Your task to perform on an android device: toggle location history Image 0: 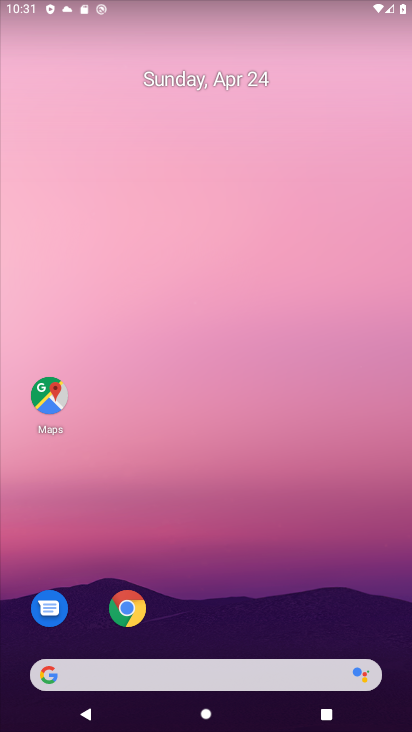
Step 0: drag from (289, 598) to (303, 139)
Your task to perform on an android device: toggle location history Image 1: 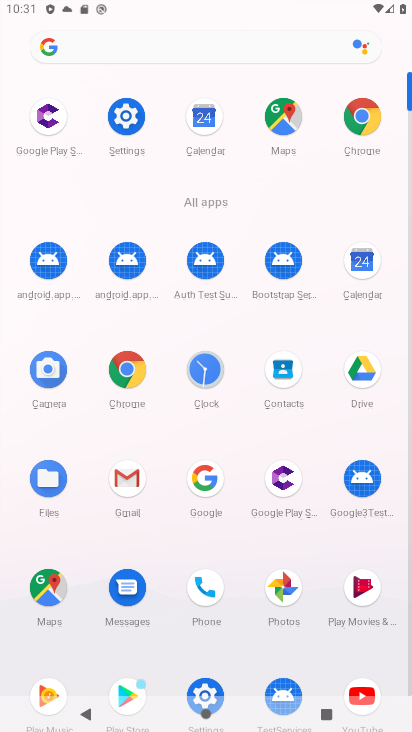
Step 1: click (125, 118)
Your task to perform on an android device: toggle location history Image 2: 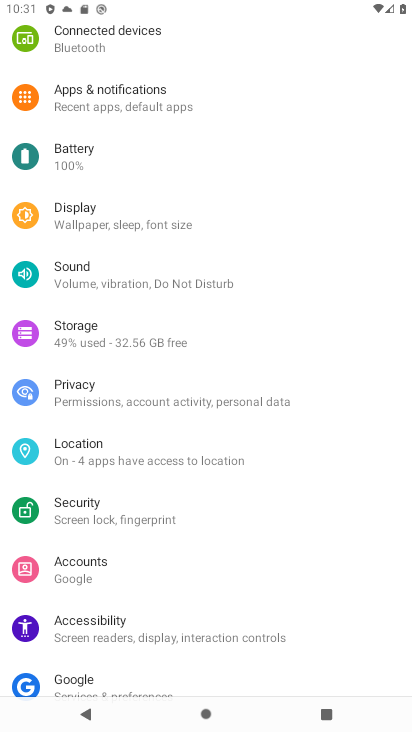
Step 2: click (105, 458)
Your task to perform on an android device: toggle location history Image 3: 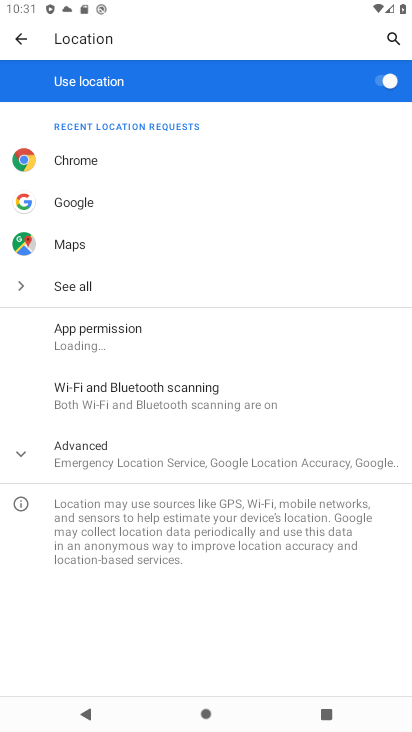
Step 3: click (116, 460)
Your task to perform on an android device: toggle location history Image 4: 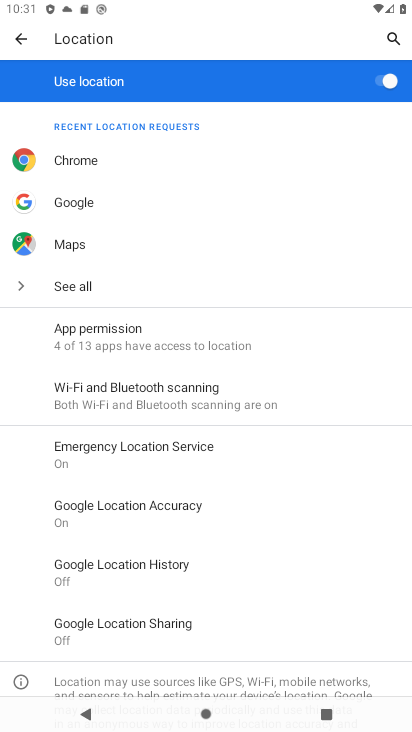
Step 4: click (131, 573)
Your task to perform on an android device: toggle location history Image 5: 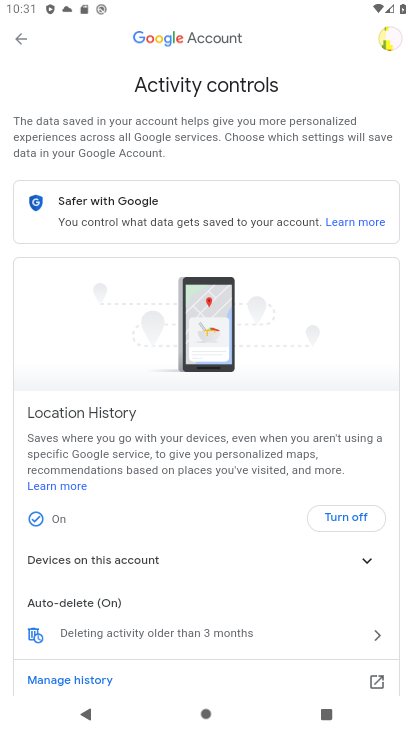
Step 5: click (368, 519)
Your task to perform on an android device: toggle location history Image 6: 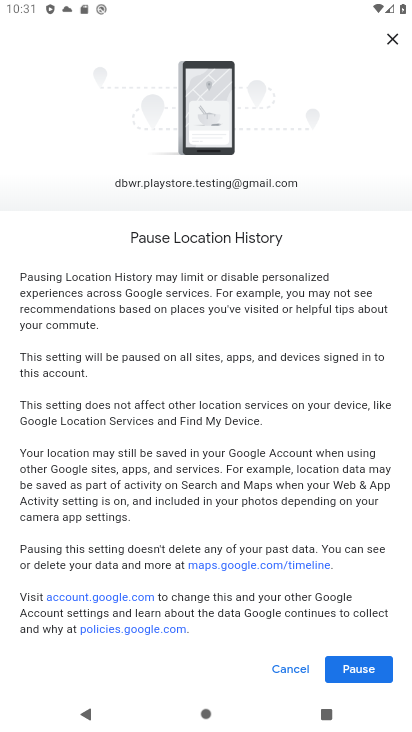
Step 6: click (340, 668)
Your task to perform on an android device: toggle location history Image 7: 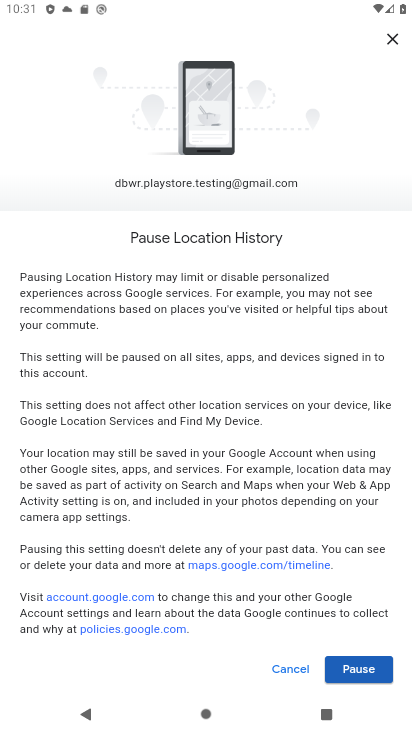
Step 7: click (376, 673)
Your task to perform on an android device: toggle location history Image 8: 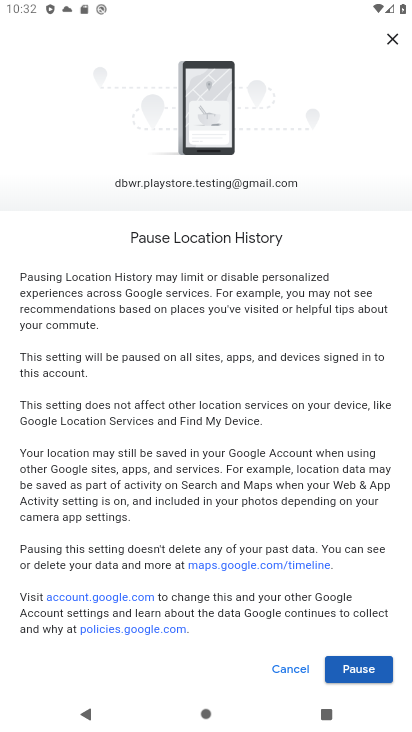
Step 8: click (376, 680)
Your task to perform on an android device: toggle location history Image 9: 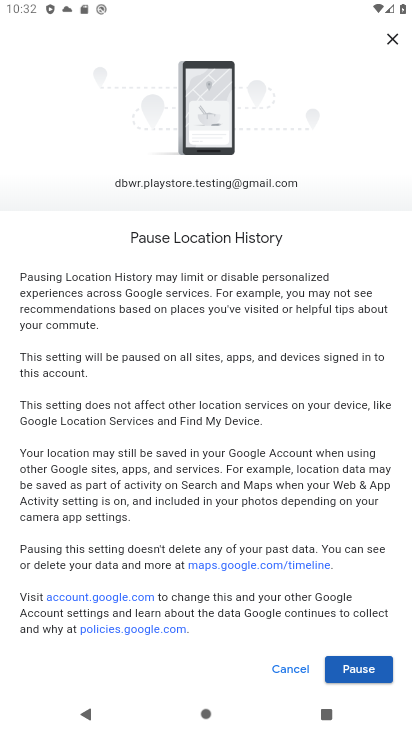
Step 9: drag from (185, 485) to (264, 227)
Your task to perform on an android device: toggle location history Image 10: 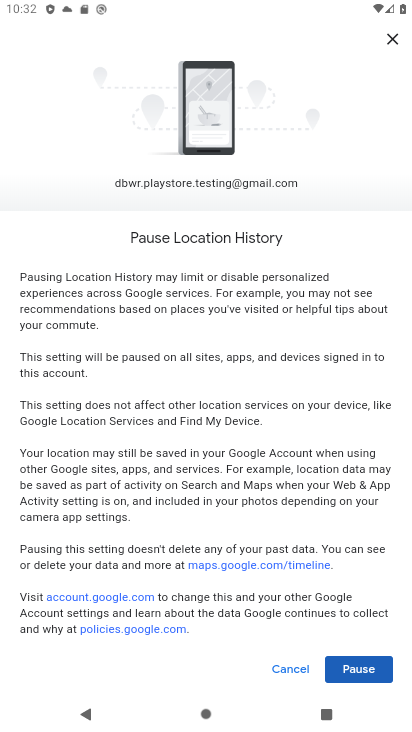
Step 10: click (358, 667)
Your task to perform on an android device: toggle location history Image 11: 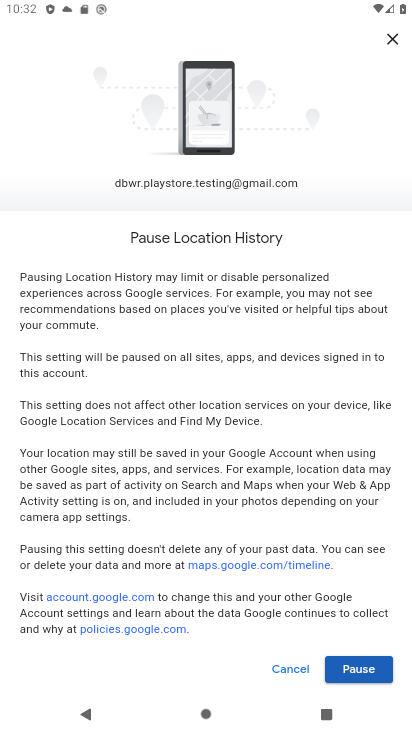
Step 11: click (359, 667)
Your task to perform on an android device: toggle location history Image 12: 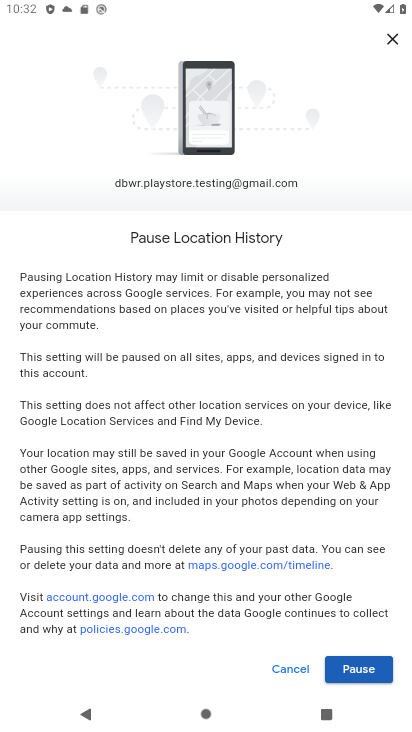
Step 12: drag from (363, 627) to (338, 325)
Your task to perform on an android device: toggle location history Image 13: 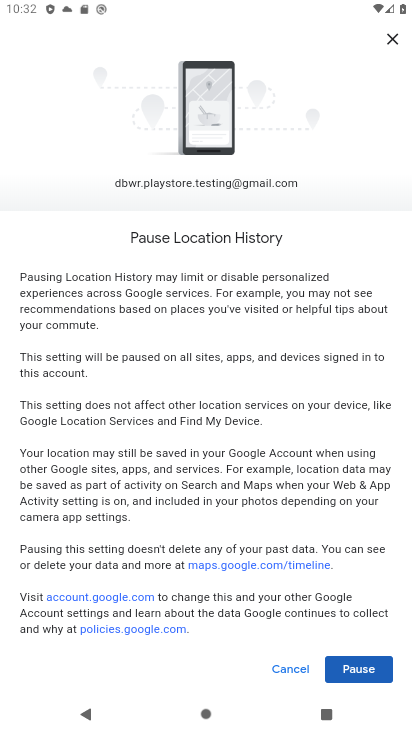
Step 13: drag from (280, 498) to (257, 225)
Your task to perform on an android device: toggle location history Image 14: 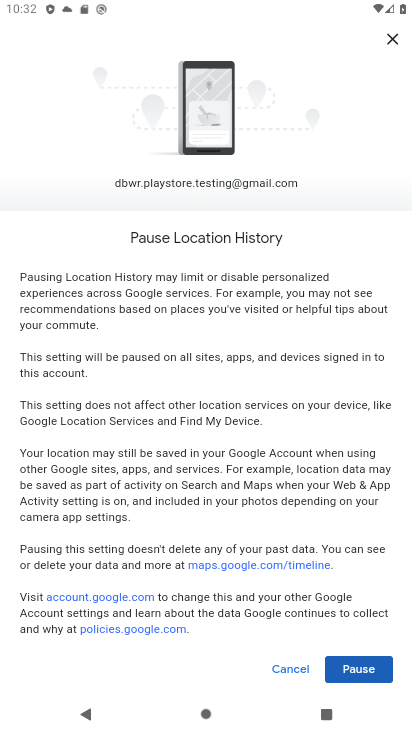
Step 14: click (370, 665)
Your task to perform on an android device: toggle location history Image 15: 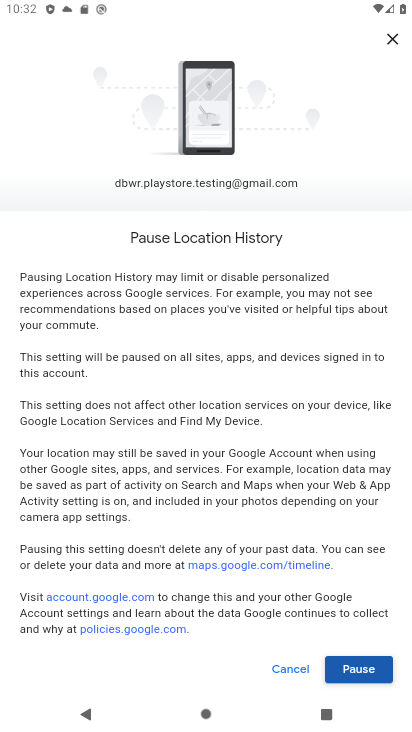
Step 15: click (363, 672)
Your task to perform on an android device: toggle location history Image 16: 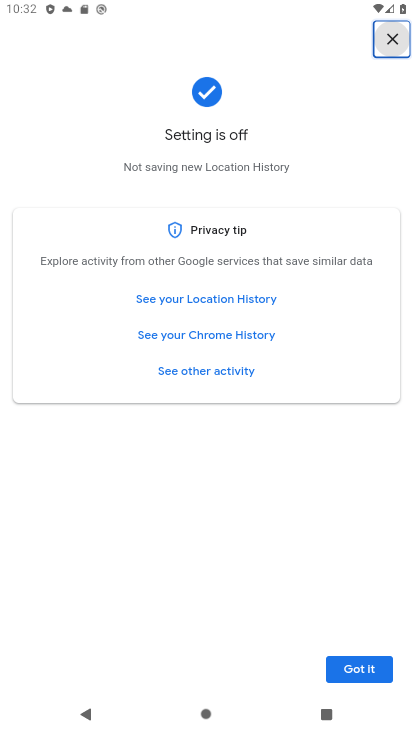
Step 16: task complete